Your task to perform on an android device: Open Google Chrome and open the bookmarks view Image 0: 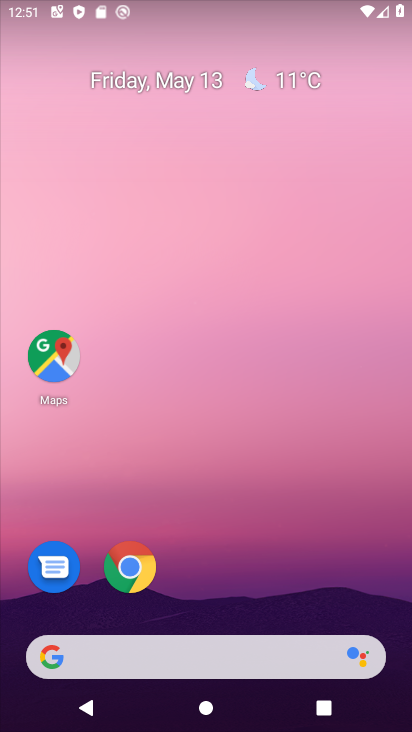
Step 0: click (137, 573)
Your task to perform on an android device: Open Google Chrome and open the bookmarks view Image 1: 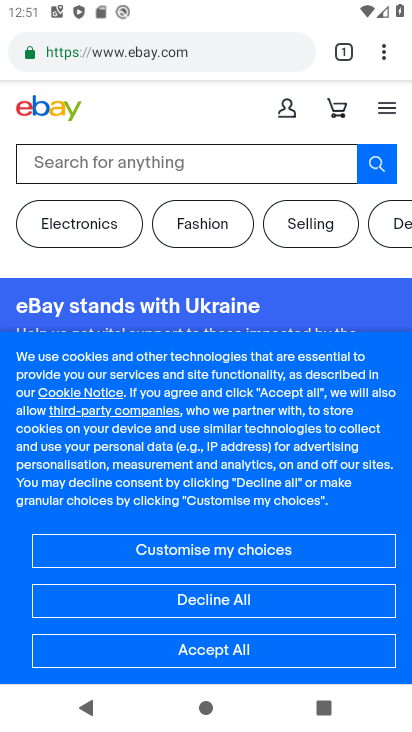
Step 1: click (381, 51)
Your task to perform on an android device: Open Google Chrome and open the bookmarks view Image 2: 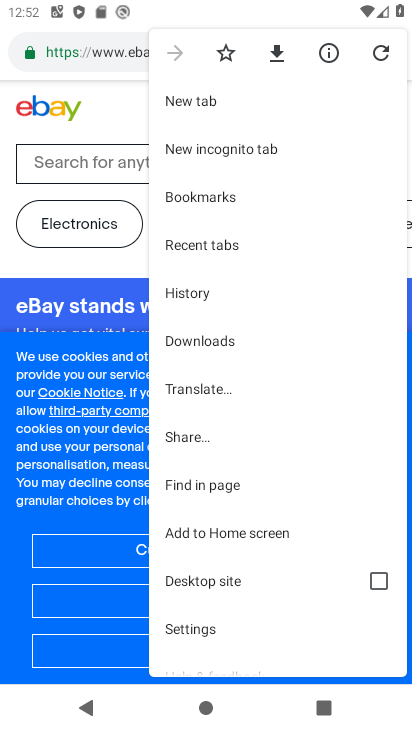
Step 2: click (261, 189)
Your task to perform on an android device: Open Google Chrome and open the bookmarks view Image 3: 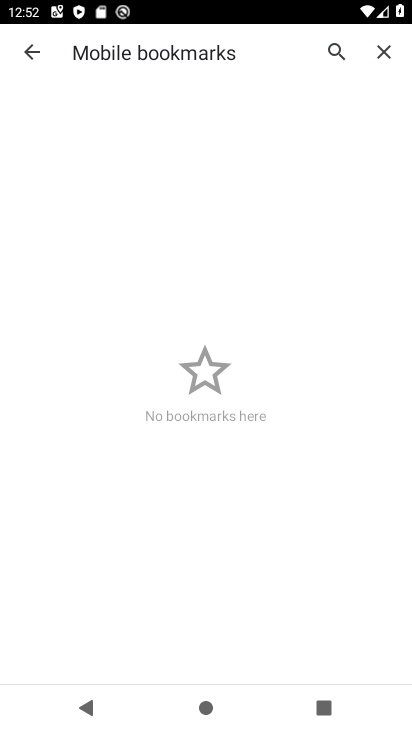
Step 3: task complete